Your task to perform on an android device: Go to accessibility settings Image 0: 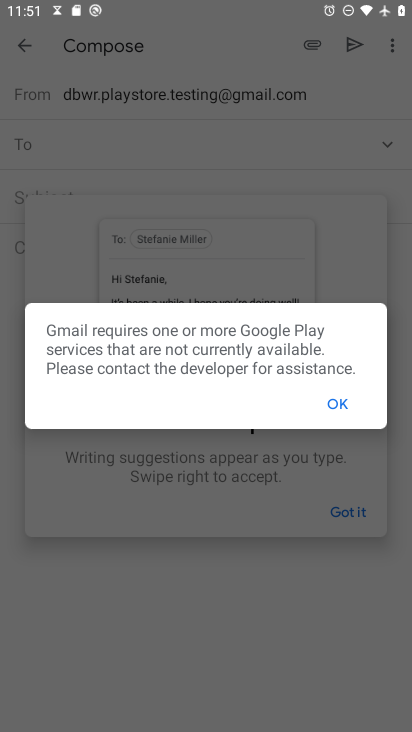
Step 0: press home button
Your task to perform on an android device: Go to accessibility settings Image 1: 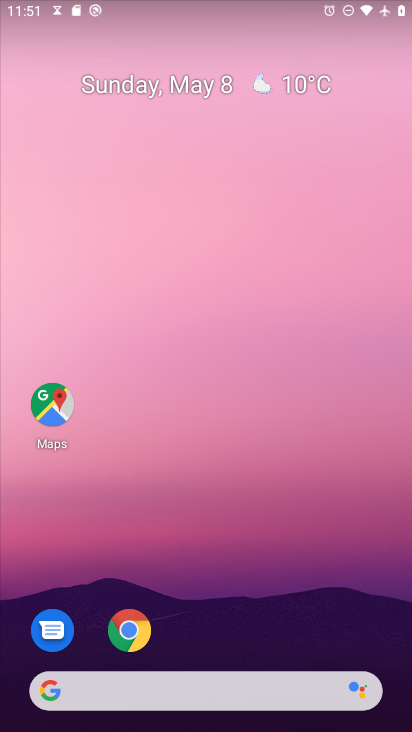
Step 1: drag from (147, 685) to (331, 195)
Your task to perform on an android device: Go to accessibility settings Image 2: 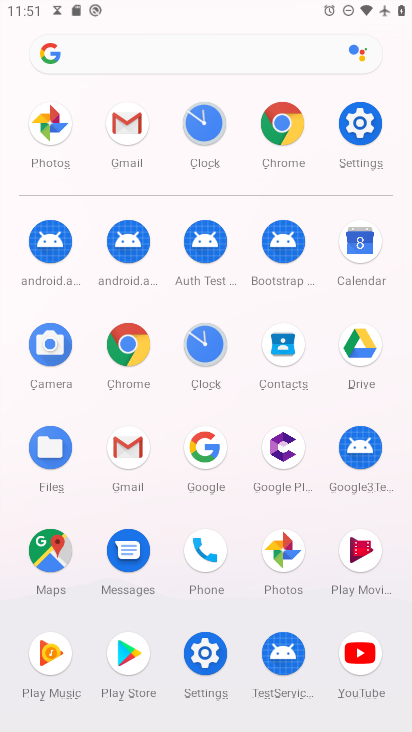
Step 2: click (369, 130)
Your task to perform on an android device: Go to accessibility settings Image 3: 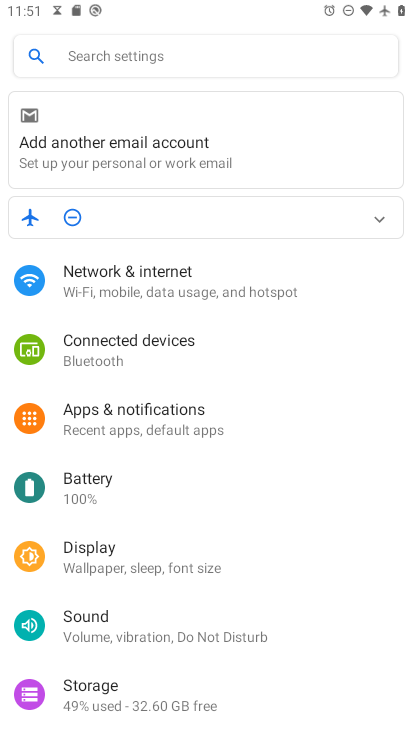
Step 3: drag from (148, 624) to (324, 156)
Your task to perform on an android device: Go to accessibility settings Image 4: 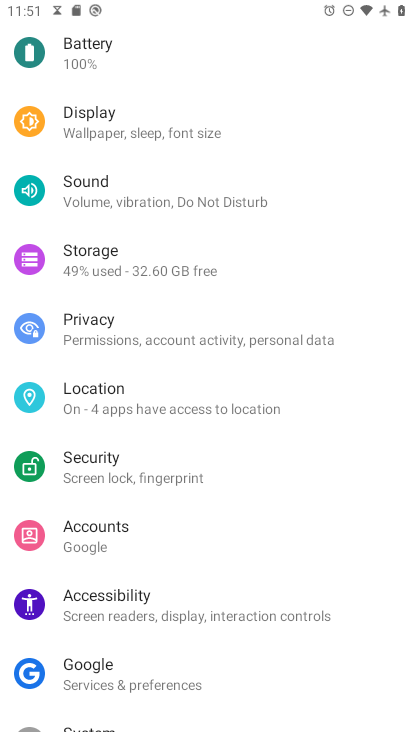
Step 4: click (137, 603)
Your task to perform on an android device: Go to accessibility settings Image 5: 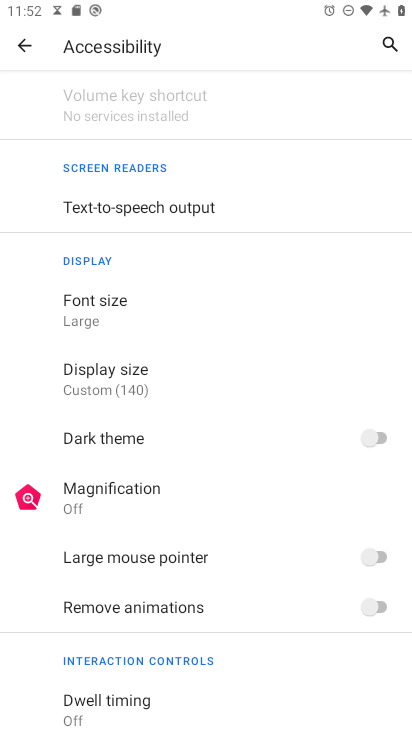
Step 5: task complete